Your task to perform on an android device: set the timer Image 0: 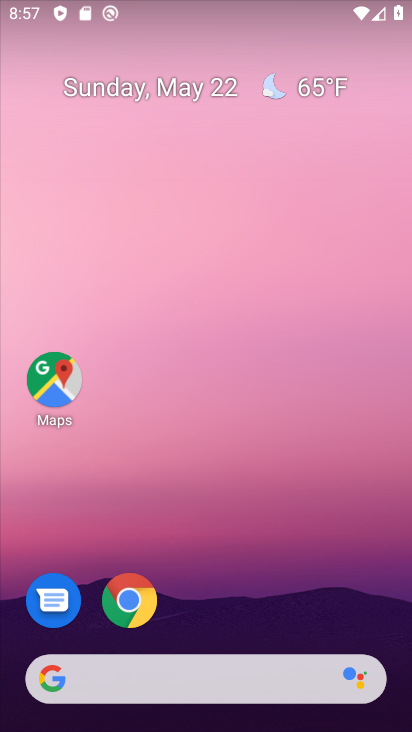
Step 0: drag from (210, 624) to (220, 187)
Your task to perform on an android device: set the timer Image 1: 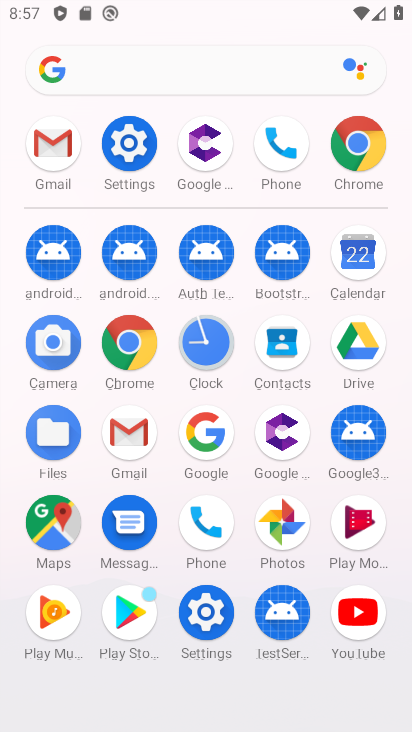
Step 1: click (212, 356)
Your task to perform on an android device: set the timer Image 2: 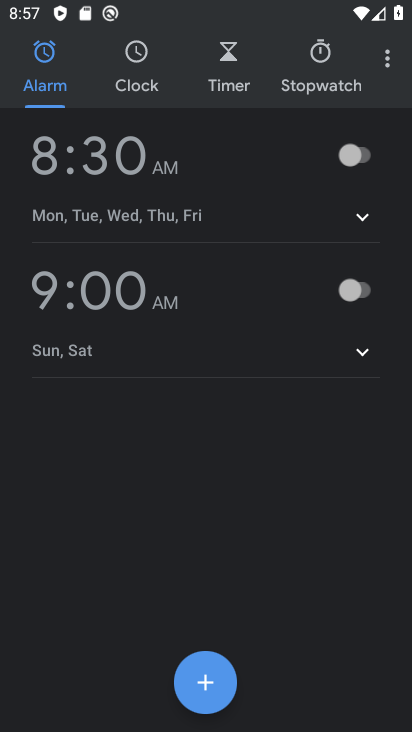
Step 2: click (225, 87)
Your task to perform on an android device: set the timer Image 3: 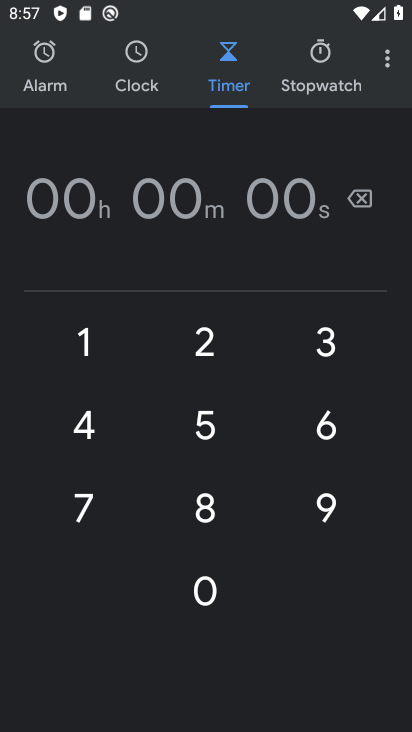
Step 3: click (216, 345)
Your task to perform on an android device: set the timer Image 4: 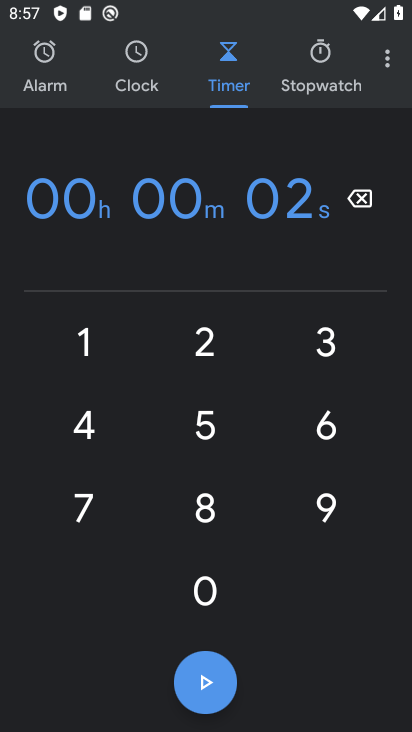
Step 4: click (210, 611)
Your task to perform on an android device: set the timer Image 5: 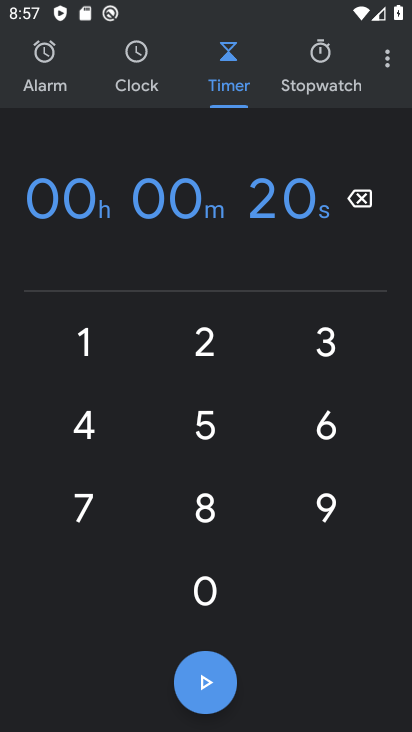
Step 5: click (194, 344)
Your task to perform on an android device: set the timer Image 6: 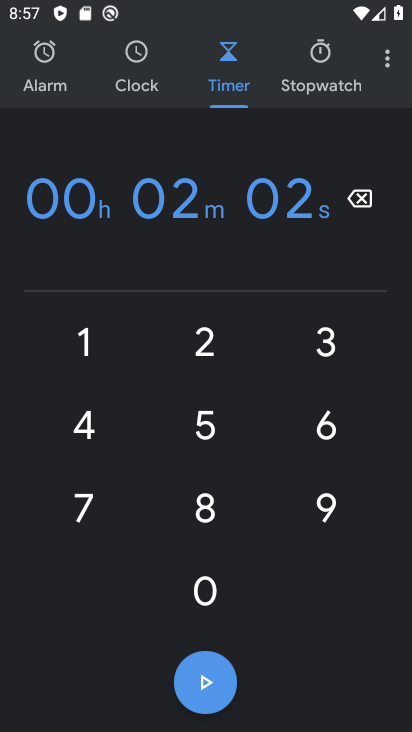
Step 6: click (208, 606)
Your task to perform on an android device: set the timer Image 7: 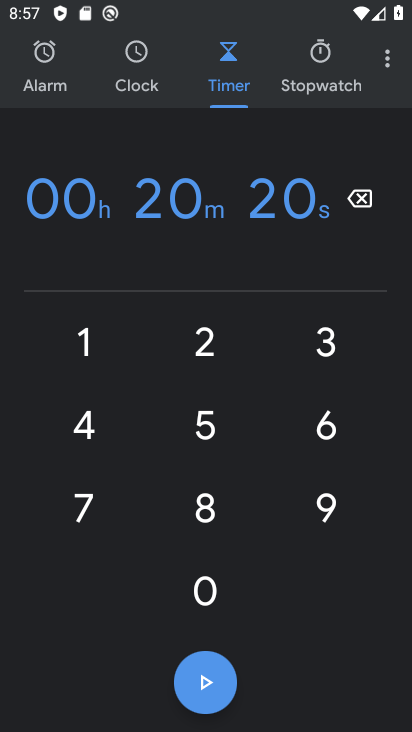
Step 7: click (208, 698)
Your task to perform on an android device: set the timer Image 8: 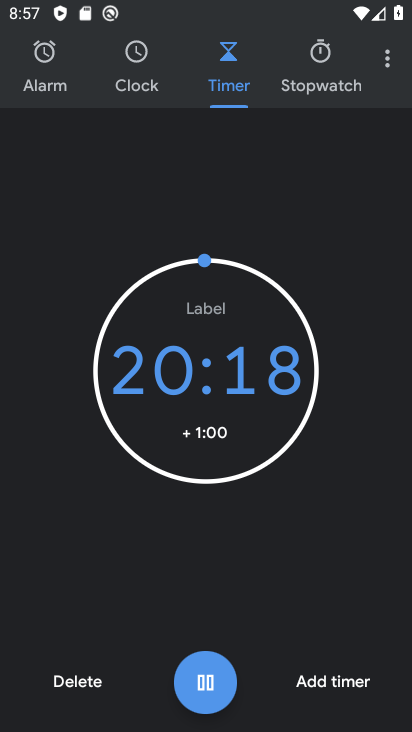
Step 8: task complete